Your task to perform on an android device: open sync settings in chrome Image 0: 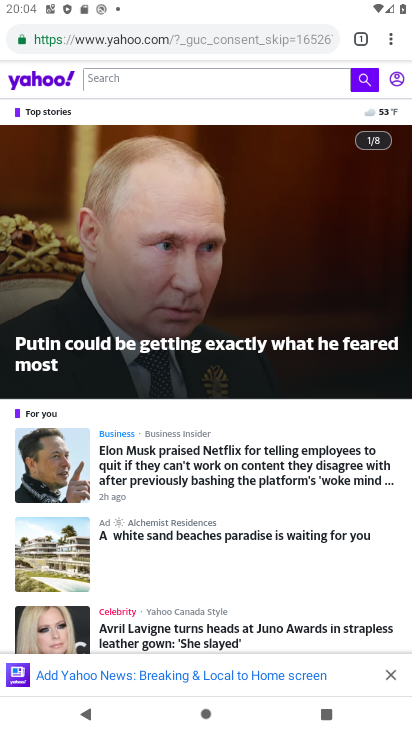
Step 0: click (378, 36)
Your task to perform on an android device: open sync settings in chrome Image 1: 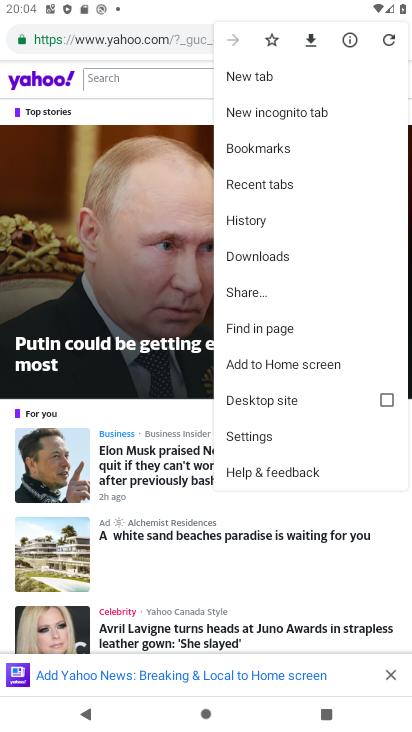
Step 1: click (267, 440)
Your task to perform on an android device: open sync settings in chrome Image 2: 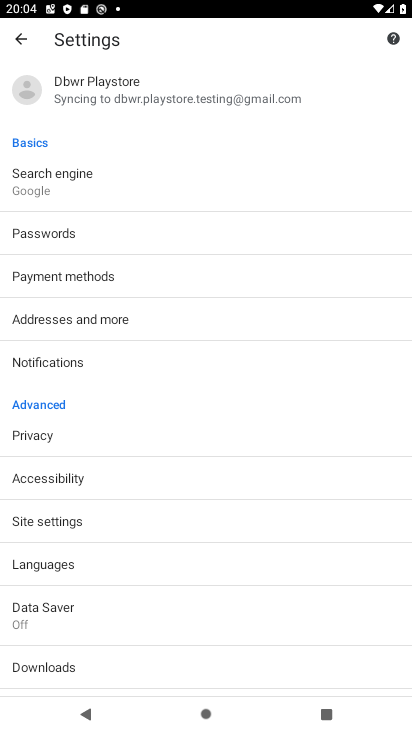
Step 2: click (56, 528)
Your task to perform on an android device: open sync settings in chrome Image 3: 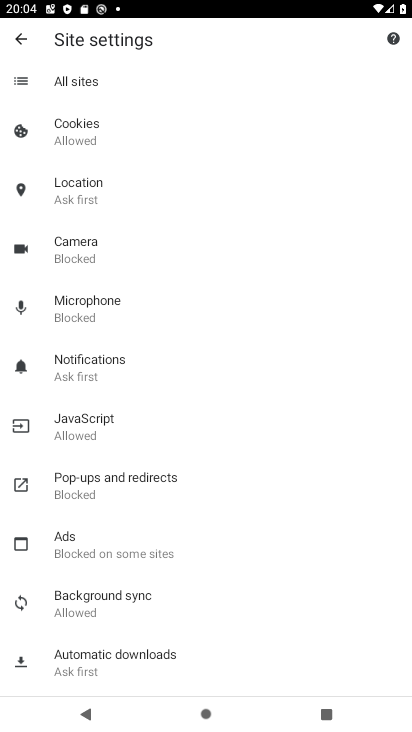
Step 3: click (143, 606)
Your task to perform on an android device: open sync settings in chrome Image 4: 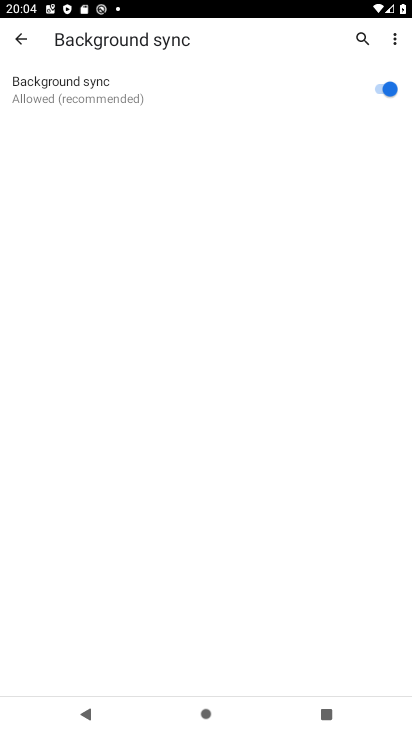
Step 4: task complete